Your task to perform on an android device: Open network settings Image 0: 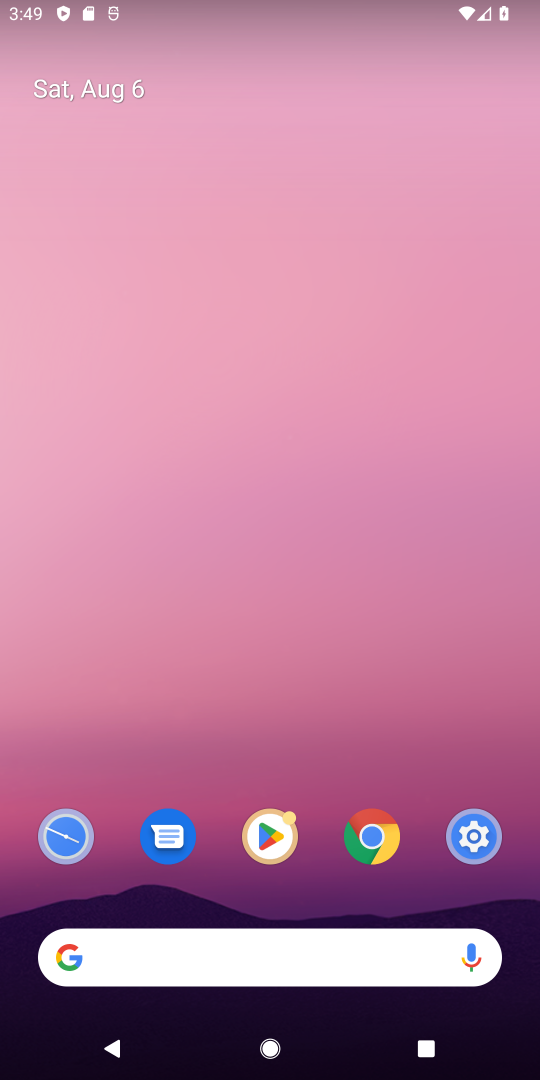
Step 0: click (472, 840)
Your task to perform on an android device: Open network settings Image 1: 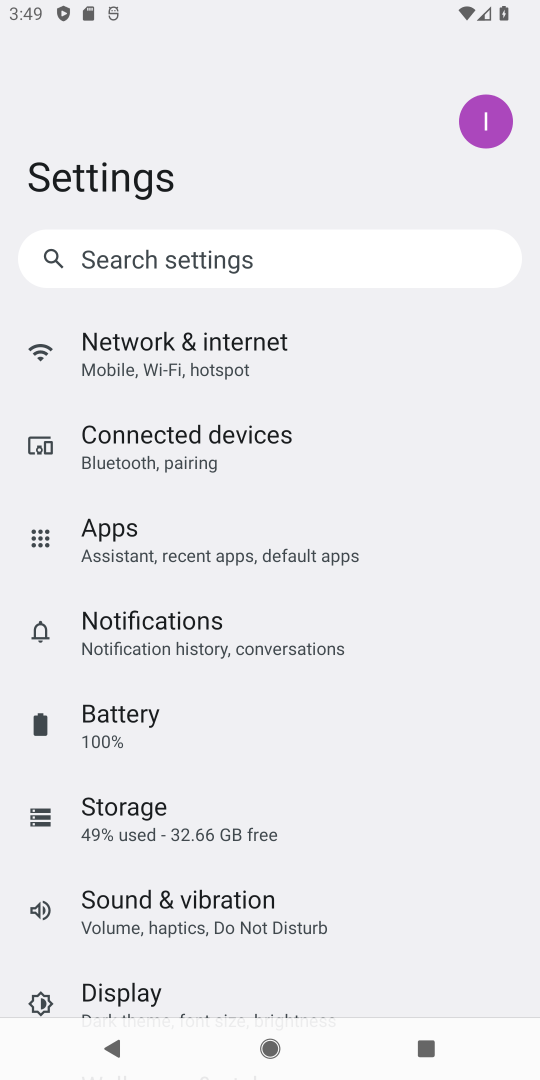
Step 1: click (184, 314)
Your task to perform on an android device: Open network settings Image 2: 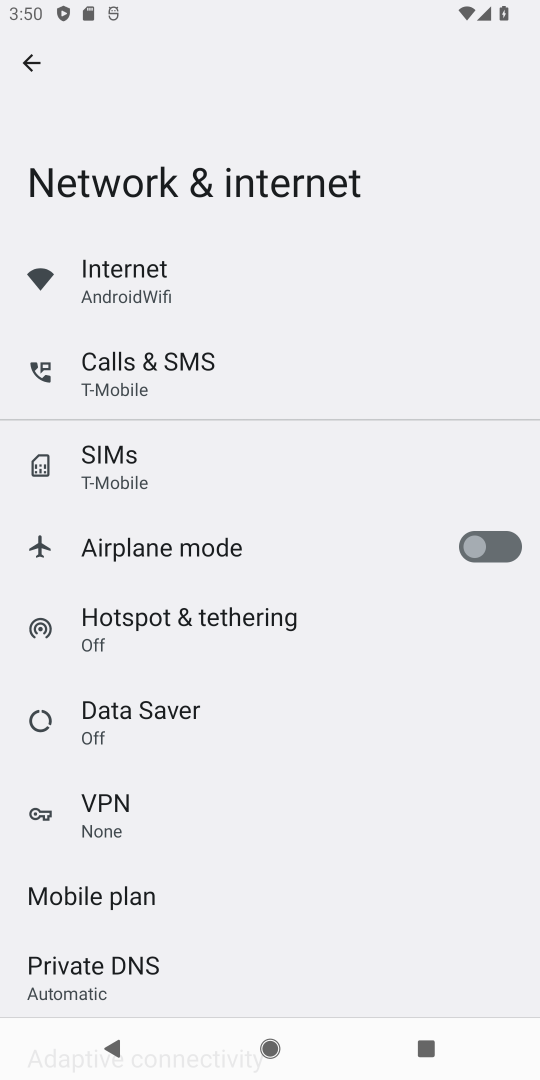
Step 2: click (155, 317)
Your task to perform on an android device: Open network settings Image 3: 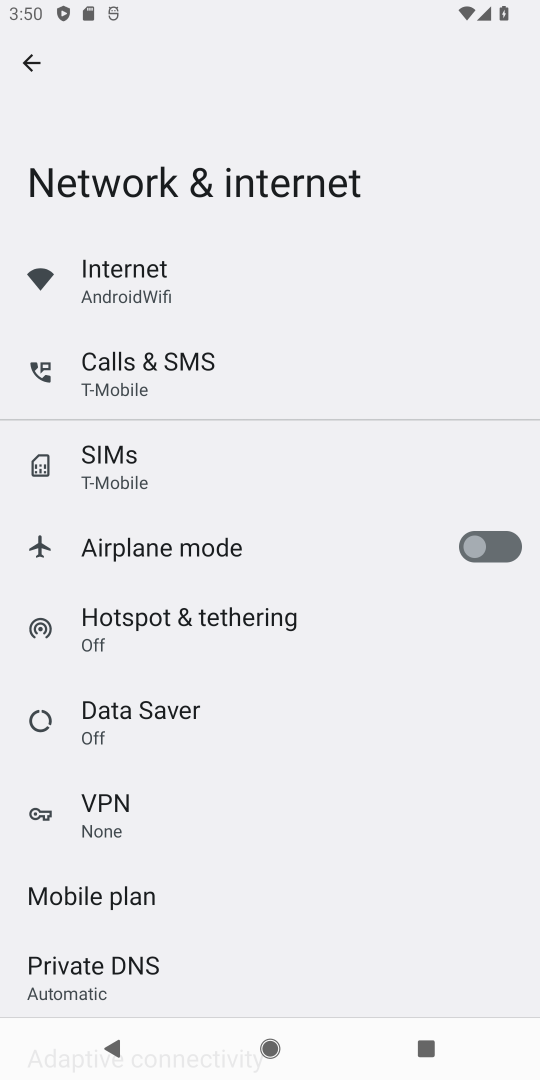
Step 3: task complete